Your task to perform on an android device: see tabs open on other devices in the chrome app Image 0: 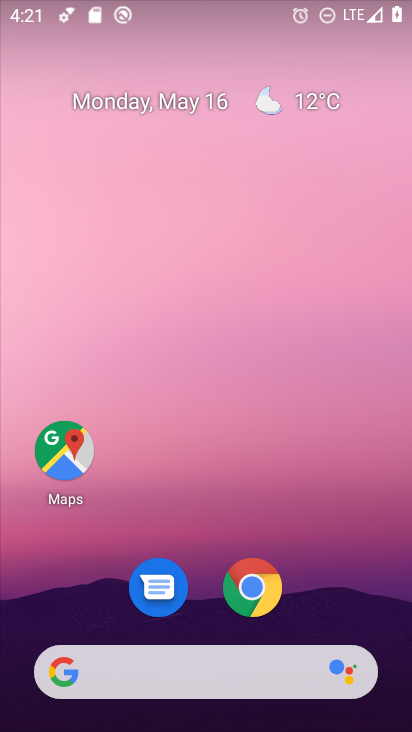
Step 0: click (258, 586)
Your task to perform on an android device: see tabs open on other devices in the chrome app Image 1: 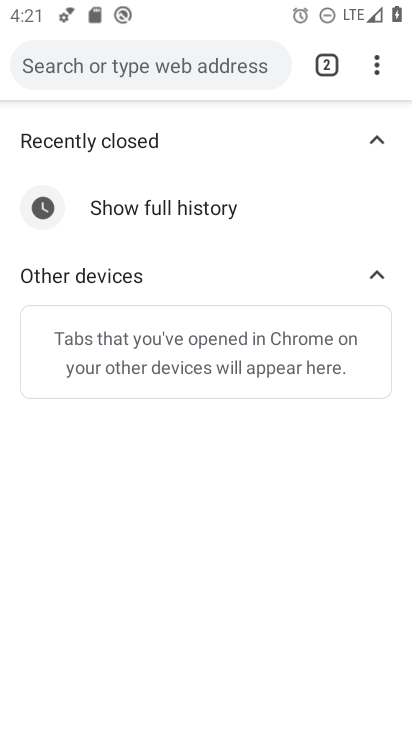
Step 1: click (372, 61)
Your task to perform on an android device: see tabs open on other devices in the chrome app Image 2: 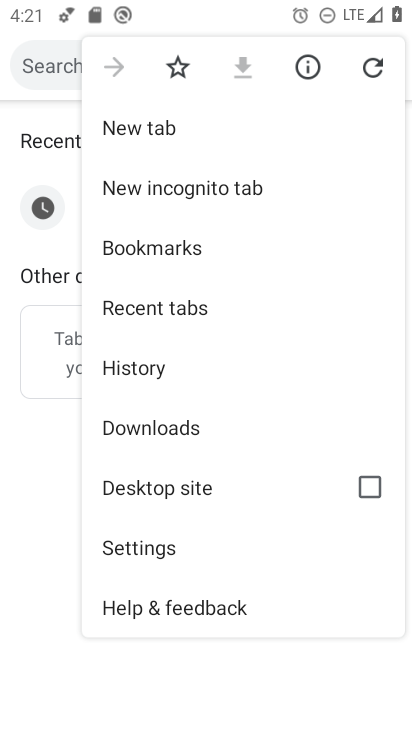
Step 2: click (139, 300)
Your task to perform on an android device: see tabs open on other devices in the chrome app Image 3: 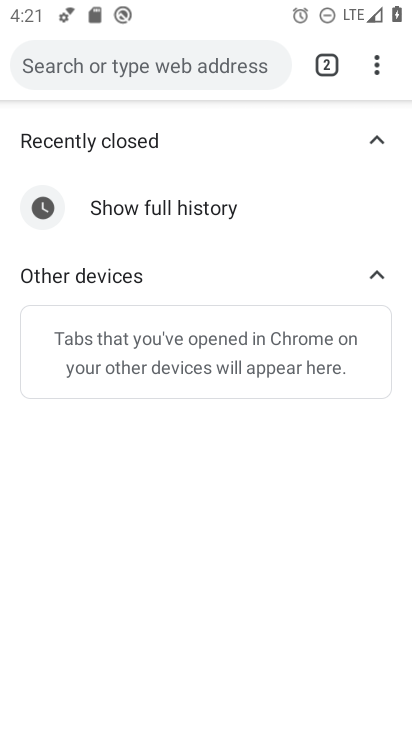
Step 3: task complete